Your task to perform on an android device: move a message to another label in the gmail app Image 0: 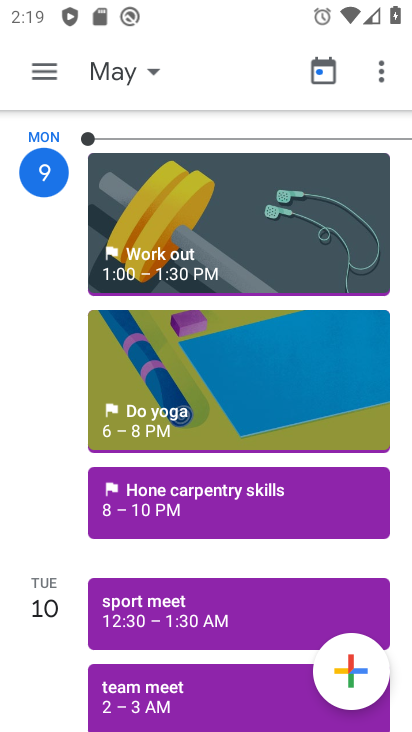
Step 0: press home button
Your task to perform on an android device: move a message to another label in the gmail app Image 1: 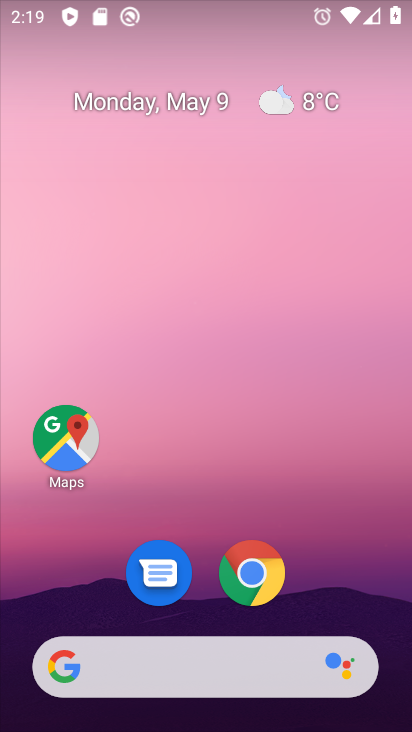
Step 1: drag from (209, 608) to (325, 195)
Your task to perform on an android device: move a message to another label in the gmail app Image 2: 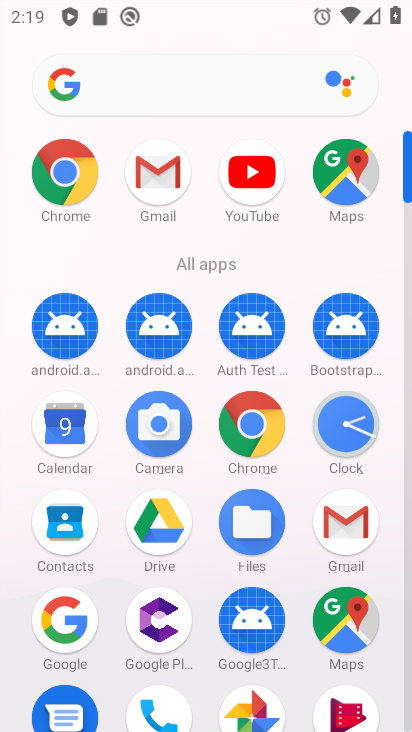
Step 2: click (150, 174)
Your task to perform on an android device: move a message to another label in the gmail app Image 3: 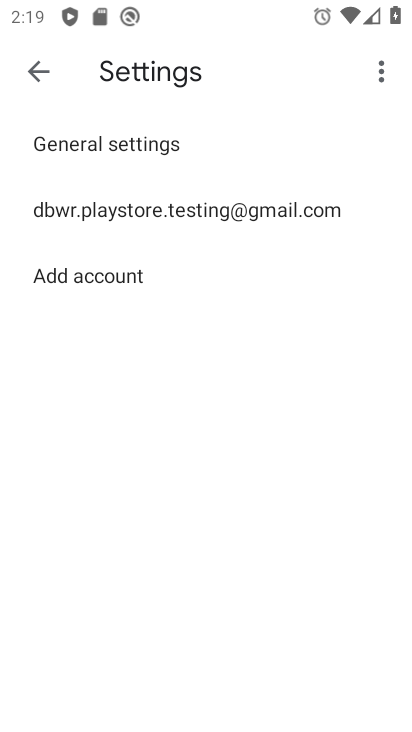
Step 3: click (40, 72)
Your task to perform on an android device: move a message to another label in the gmail app Image 4: 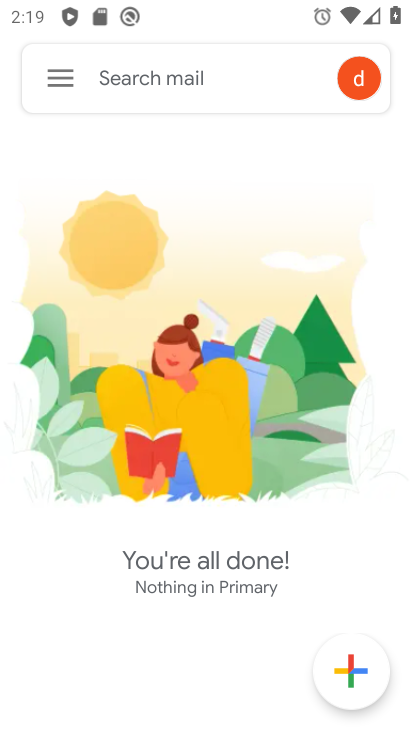
Step 4: task complete